Your task to perform on an android device: change your default location settings in chrome Image 0: 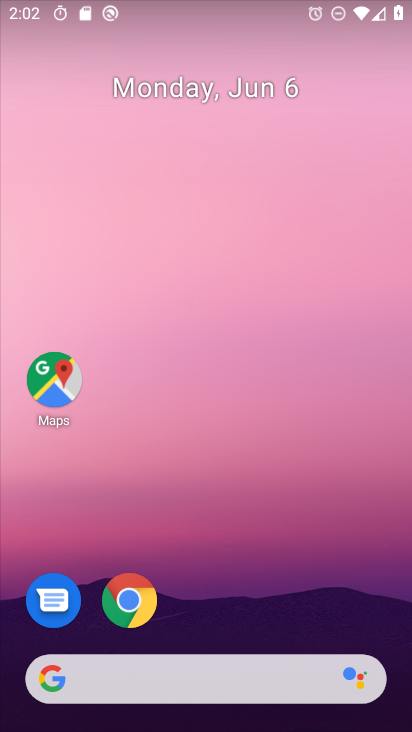
Step 0: click (141, 584)
Your task to perform on an android device: change your default location settings in chrome Image 1: 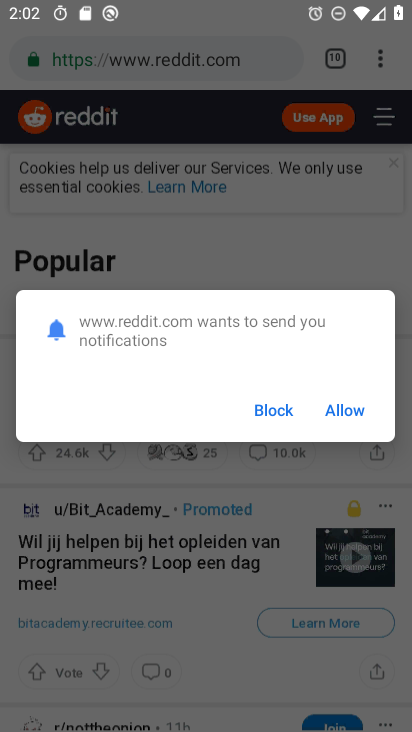
Step 1: click (334, 410)
Your task to perform on an android device: change your default location settings in chrome Image 2: 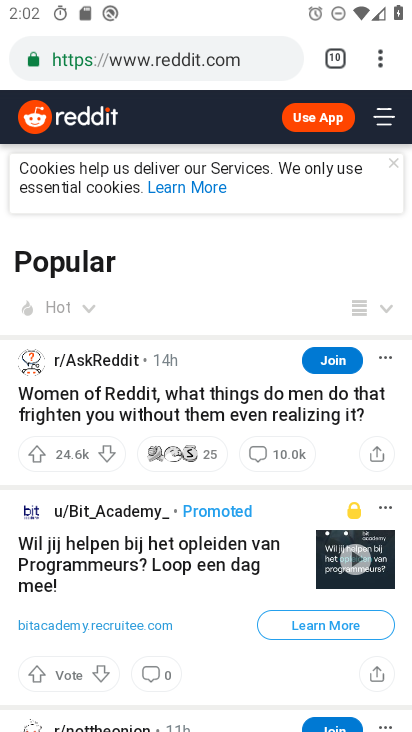
Step 2: drag from (379, 55) to (203, 638)
Your task to perform on an android device: change your default location settings in chrome Image 3: 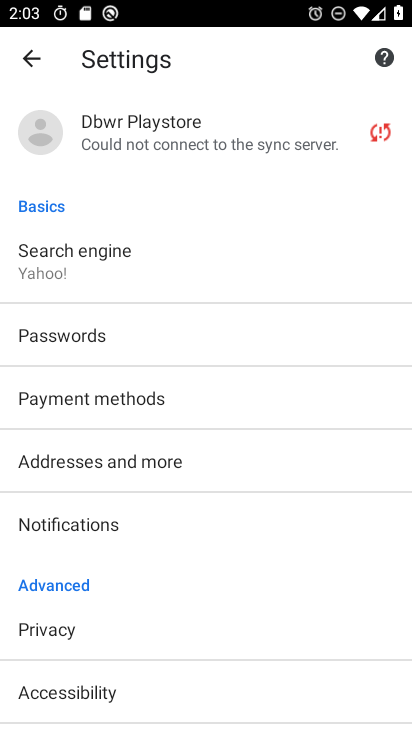
Step 3: drag from (177, 606) to (188, 308)
Your task to perform on an android device: change your default location settings in chrome Image 4: 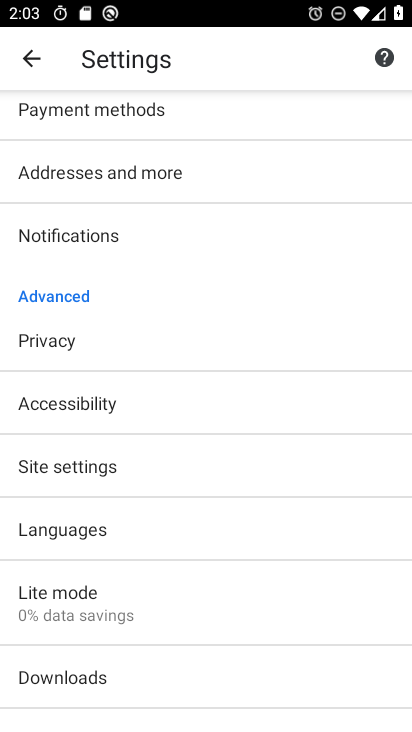
Step 4: click (113, 475)
Your task to perform on an android device: change your default location settings in chrome Image 5: 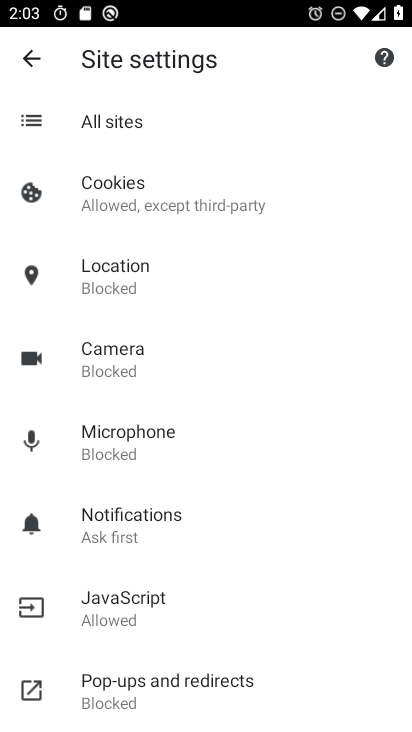
Step 5: click (163, 266)
Your task to perform on an android device: change your default location settings in chrome Image 6: 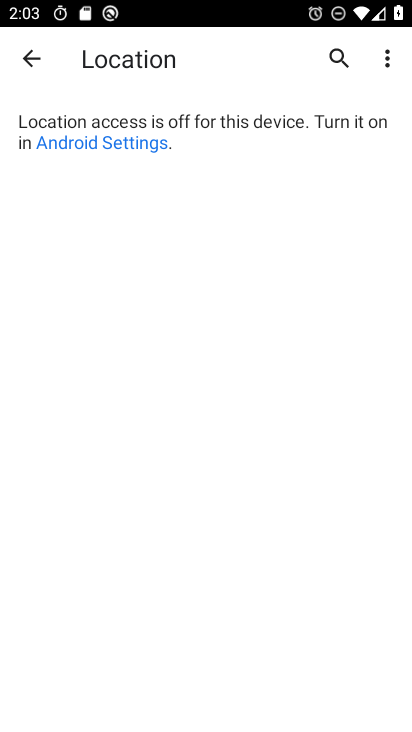
Step 6: click (76, 142)
Your task to perform on an android device: change your default location settings in chrome Image 7: 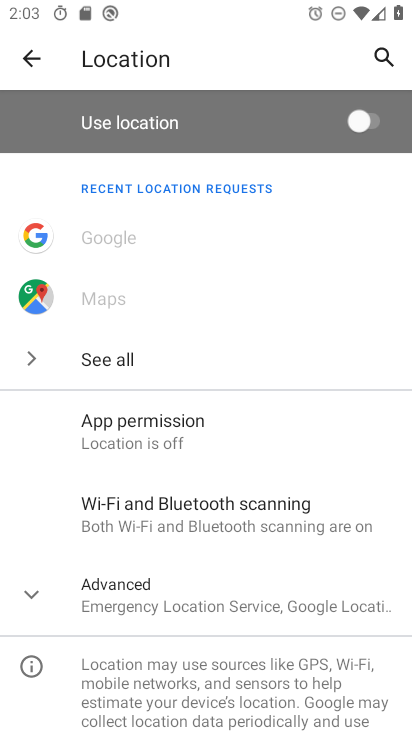
Step 7: click (380, 114)
Your task to perform on an android device: change your default location settings in chrome Image 8: 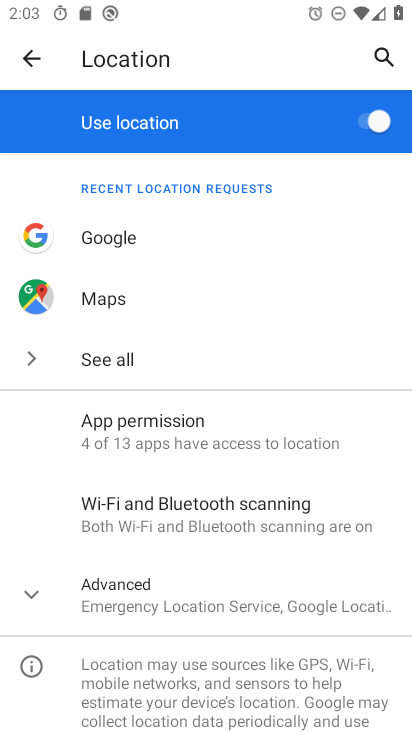
Step 8: task complete